Your task to perform on an android device: delete the emails in spam in the gmail app Image 0: 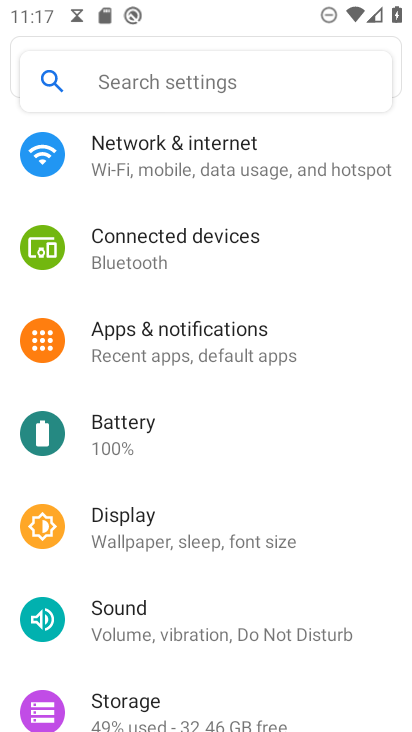
Step 0: press home button
Your task to perform on an android device: delete the emails in spam in the gmail app Image 1: 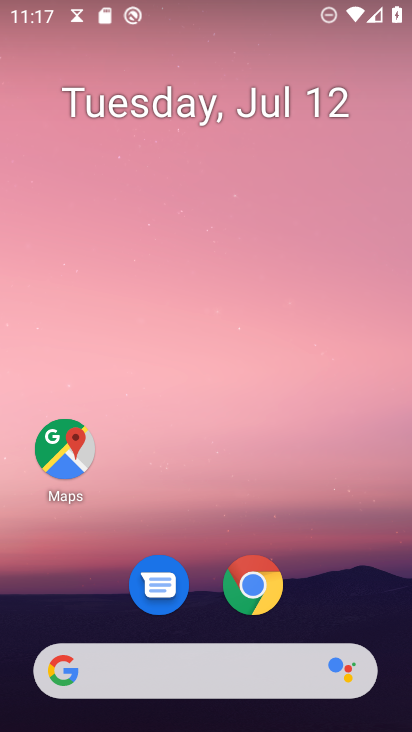
Step 1: drag from (193, 657) to (352, 89)
Your task to perform on an android device: delete the emails in spam in the gmail app Image 2: 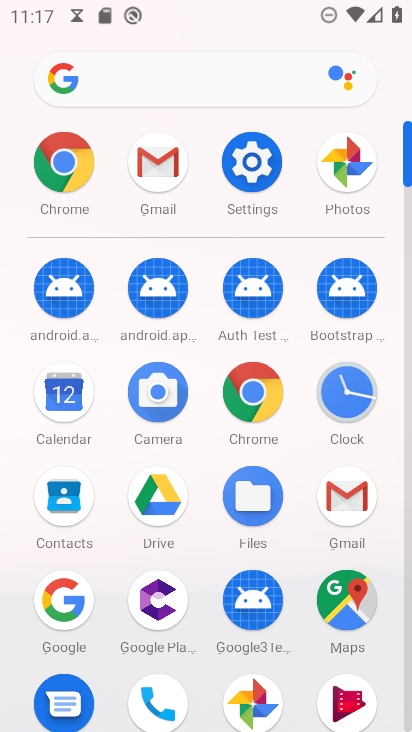
Step 2: click (162, 169)
Your task to perform on an android device: delete the emails in spam in the gmail app Image 3: 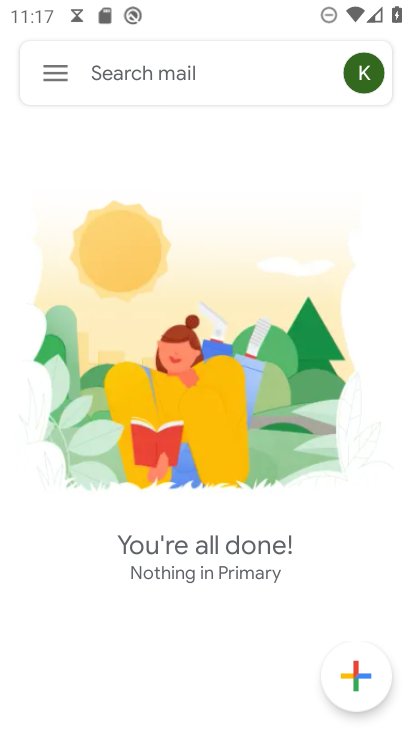
Step 3: click (55, 73)
Your task to perform on an android device: delete the emails in spam in the gmail app Image 4: 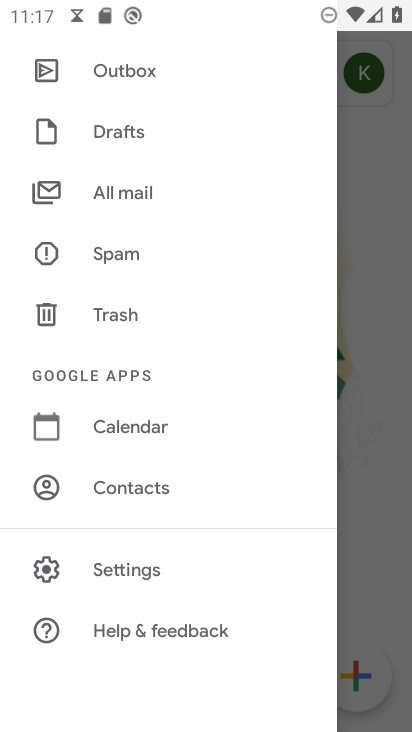
Step 4: click (126, 257)
Your task to perform on an android device: delete the emails in spam in the gmail app Image 5: 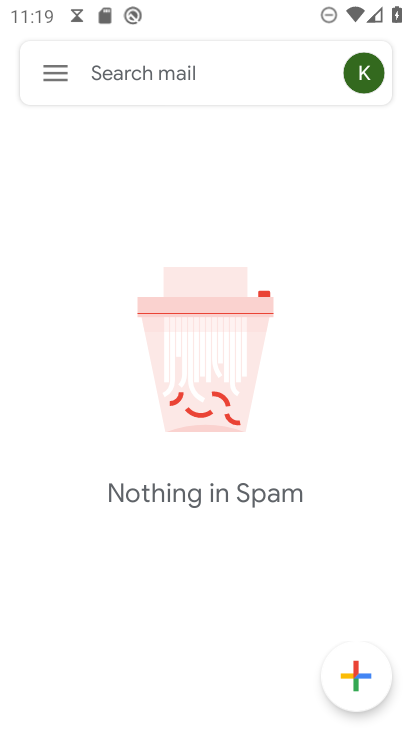
Step 5: task complete